Your task to perform on an android device: What's the weather going to be this weekend? Image 0: 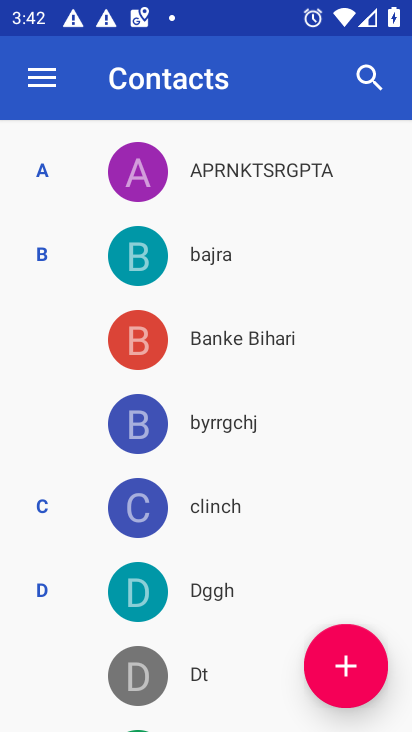
Step 0: press home button
Your task to perform on an android device: What's the weather going to be this weekend? Image 1: 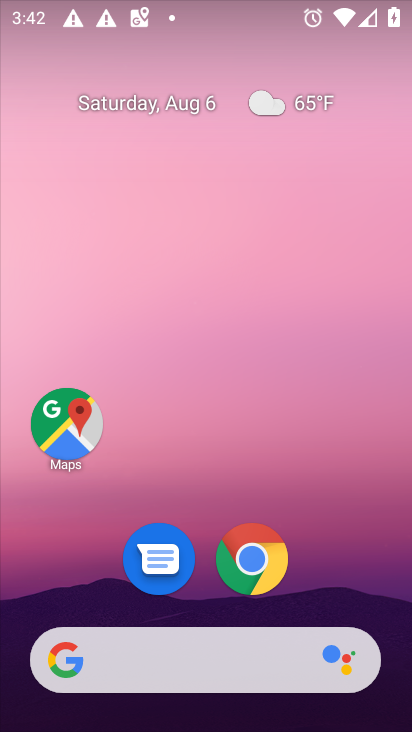
Step 1: click (211, 653)
Your task to perform on an android device: What's the weather going to be this weekend? Image 2: 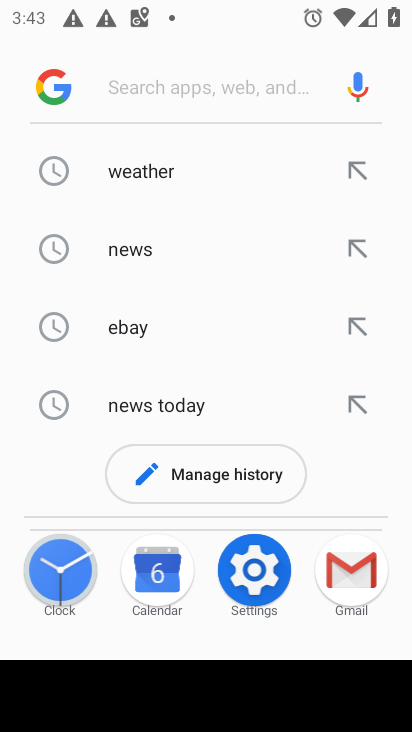
Step 2: click (154, 173)
Your task to perform on an android device: What's the weather going to be this weekend? Image 3: 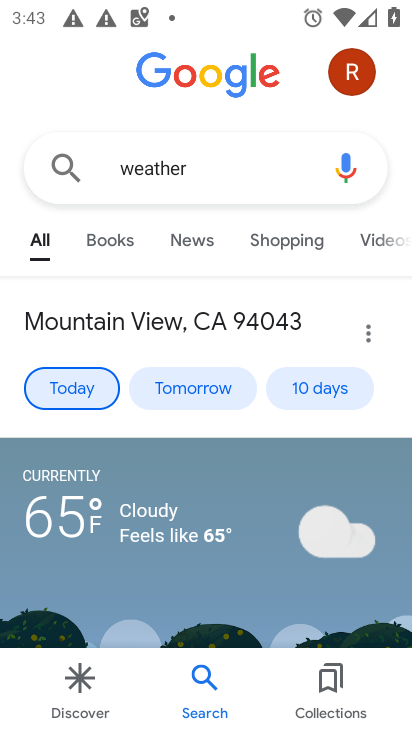
Step 3: click (309, 385)
Your task to perform on an android device: What's the weather going to be this weekend? Image 4: 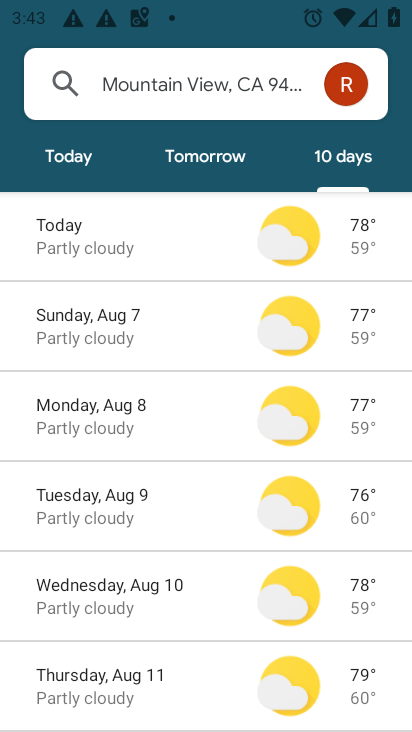
Step 4: click (145, 245)
Your task to perform on an android device: What's the weather going to be this weekend? Image 5: 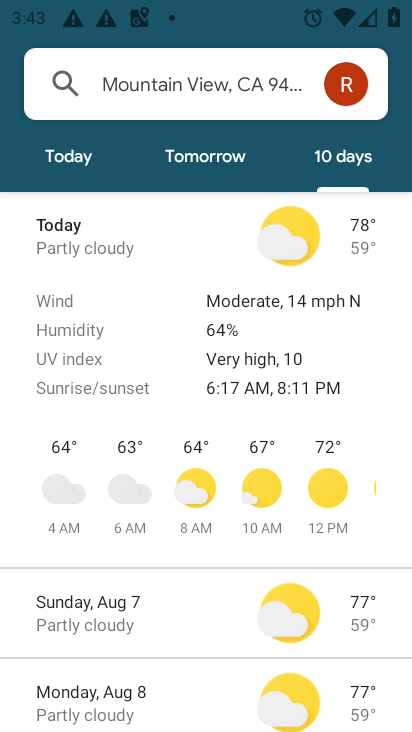
Step 5: task complete